Your task to perform on an android device: turn on improve location accuracy Image 0: 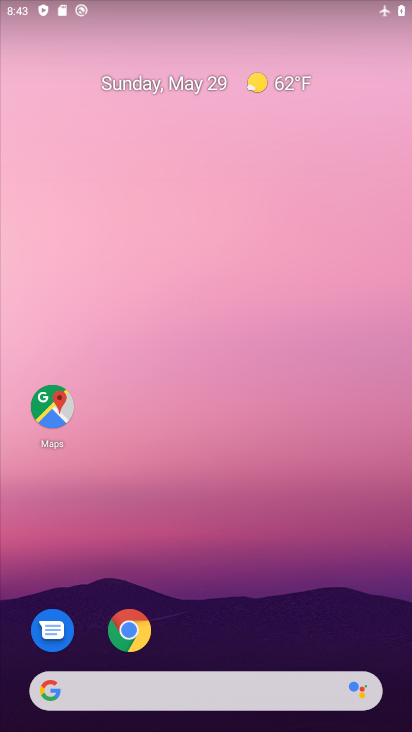
Step 0: drag from (410, 534) to (410, 134)
Your task to perform on an android device: turn on improve location accuracy Image 1: 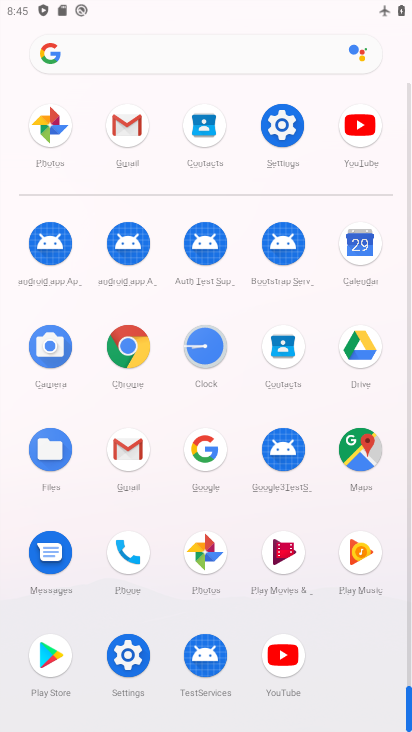
Step 1: click (269, 128)
Your task to perform on an android device: turn on improve location accuracy Image 2: 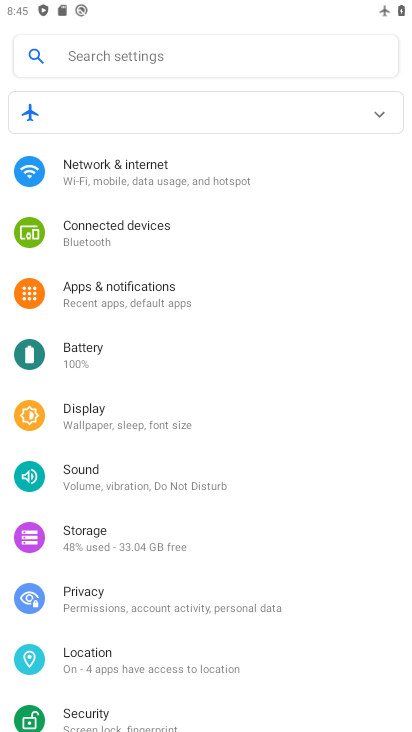
Step 2: drag from (312, 675) to (360, 254)
Your task to perform on an android device: turn on improve location accuracy Image 3: 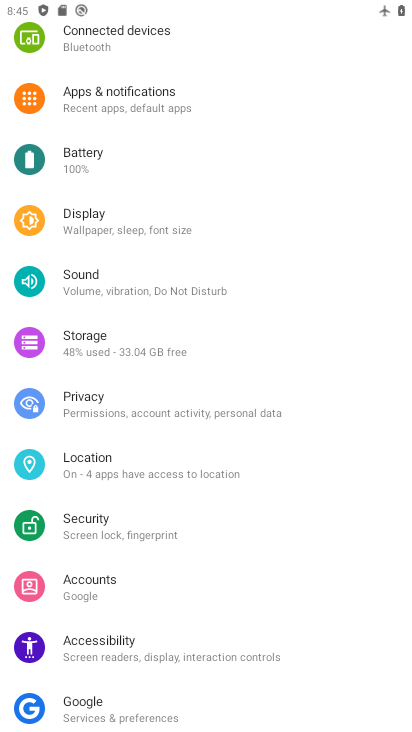
Step 3: click (91, 462)
Your task to perform on an android device: turn on improve location accuracy Image 4: 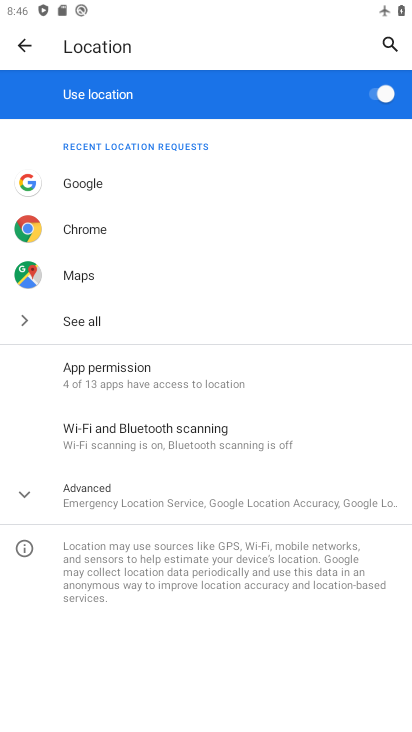
Step 4: click (34, 495)
Your task to perform on an android device: turn on improve location accuracy Image 5: 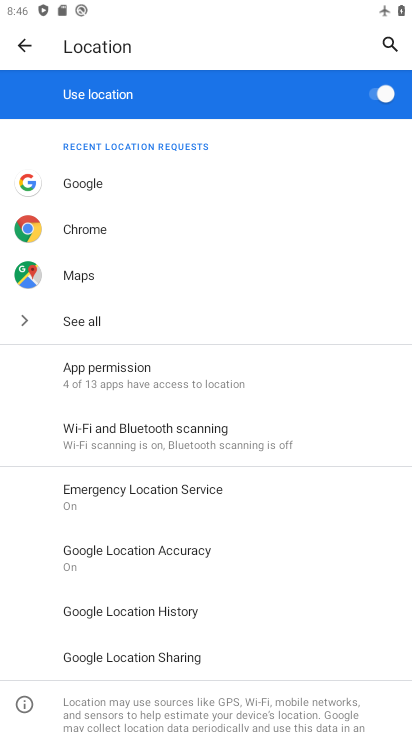
Step 5: drag from (269, 635) to (311, 344)
Your task to perform on an android device: turn on improve location accuracy Image 6: 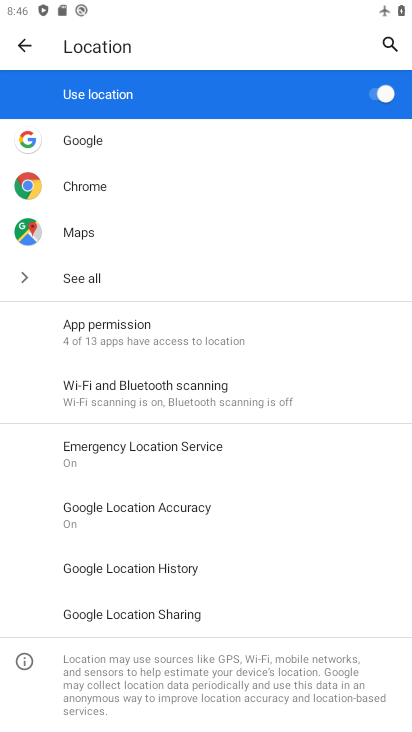
Step 6: drag from (252, 607) to (281, 348)
Your task to perform on an android device: turn on improve location accuracy Image 7: 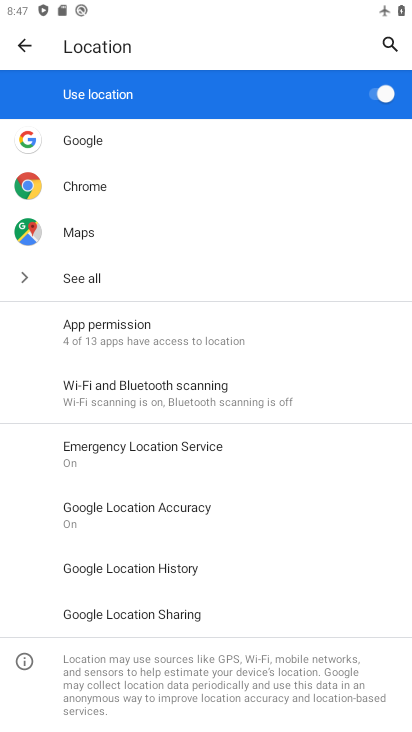
Step 7: click (141, 506)
Your task to perform on an android device: turn on improve location accuracy Image 8: 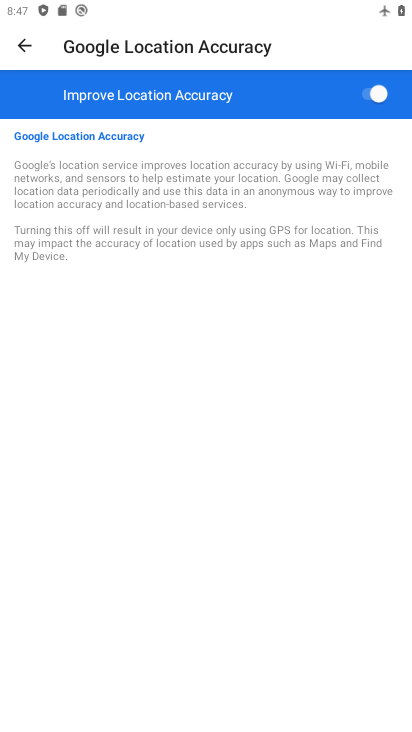
Step 8: task complete